Your task to perform on an android device: Go to privacy settings Image 0: 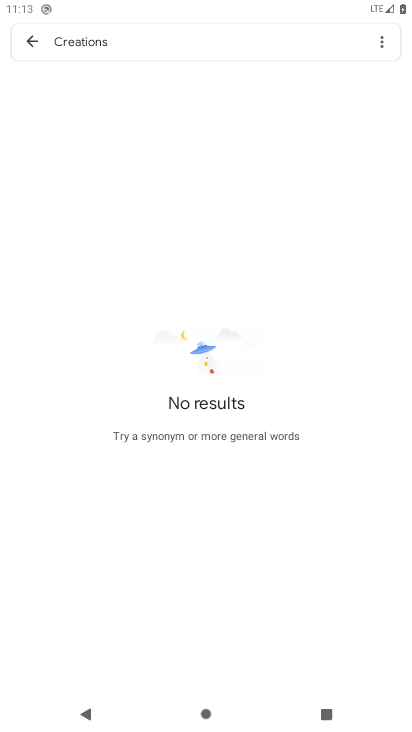
Step 0: press home button
Your task to perform on an android device: Go to privacy settings Image 1: 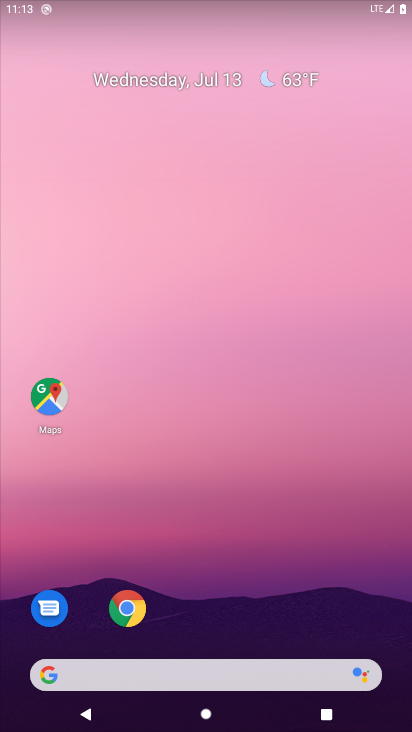
Step 1: drag from (289, 584) to (395, 57)
Your task to perform on an android device: Go to privacy settings Image 2: 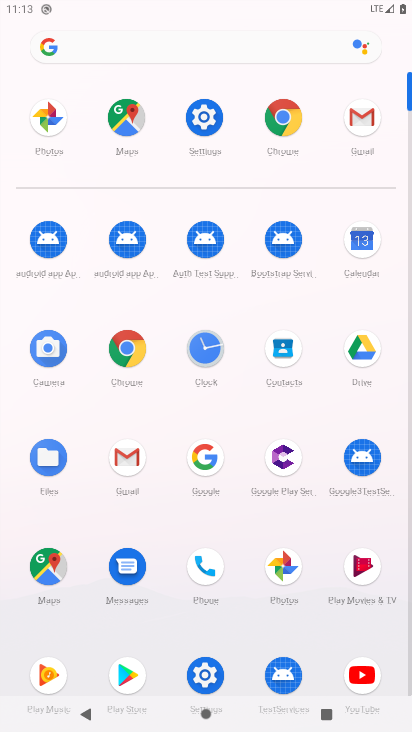
Step 2: click (200, 671)
Your task to perform on an android device: Go to privacy settings Image 3: 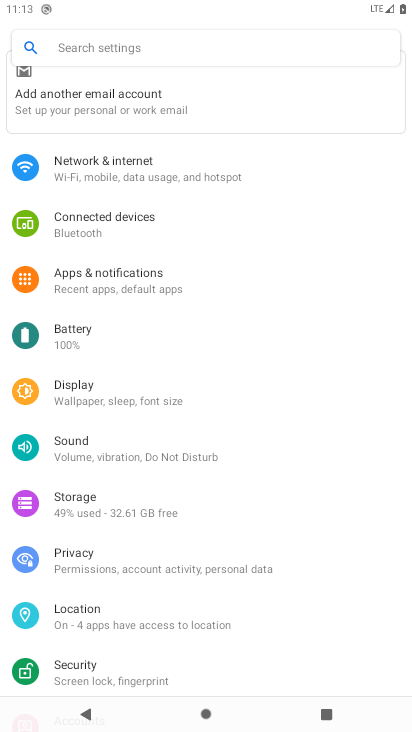
Step 3: drag from (113, 547) to (197, 314)
Your task to perform on an android device: Go to privacy settings Image 4: 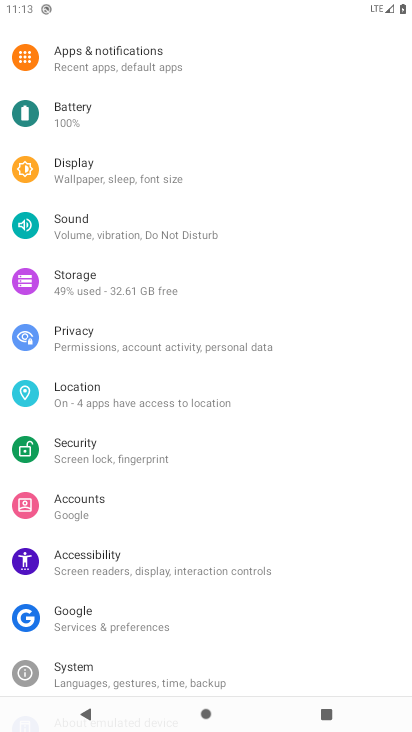
Step 4: click (52, 320)
Your task to perform on an android device: Go to privacy settings Image 5: 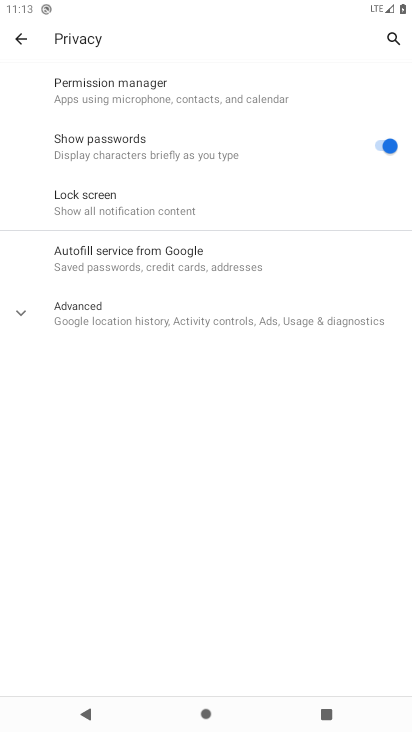
Step 5: task complete